Your task to perform on an android device: open app "Adobe Express: Graphic Design" (install if not already installed) Image 0: 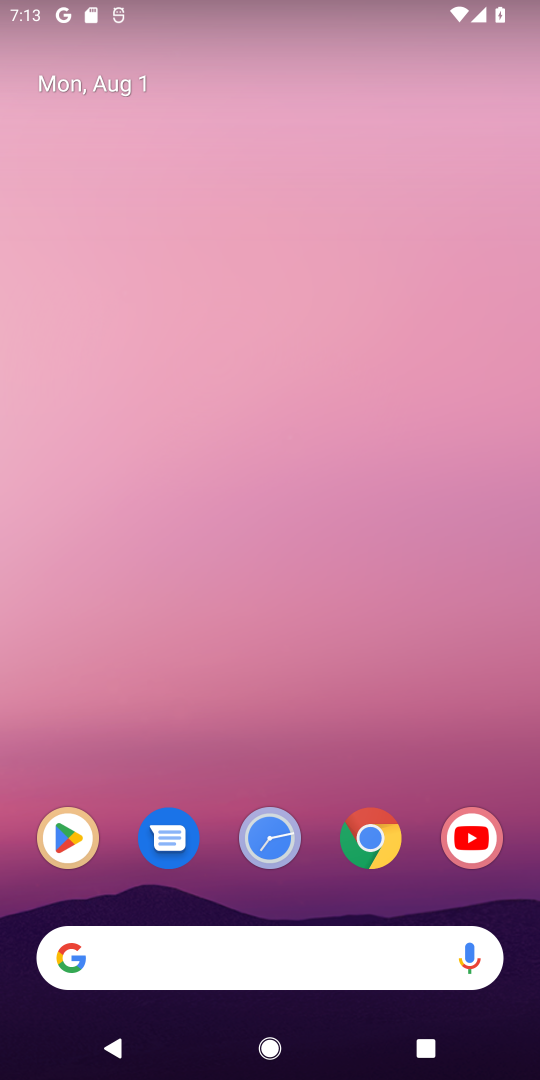
Step 0: drag from (262, 909) to (385, 49)
Your task to perform on an android device: open app "Adobe Express: Graphic Design" (install if not already installed) Image 1: 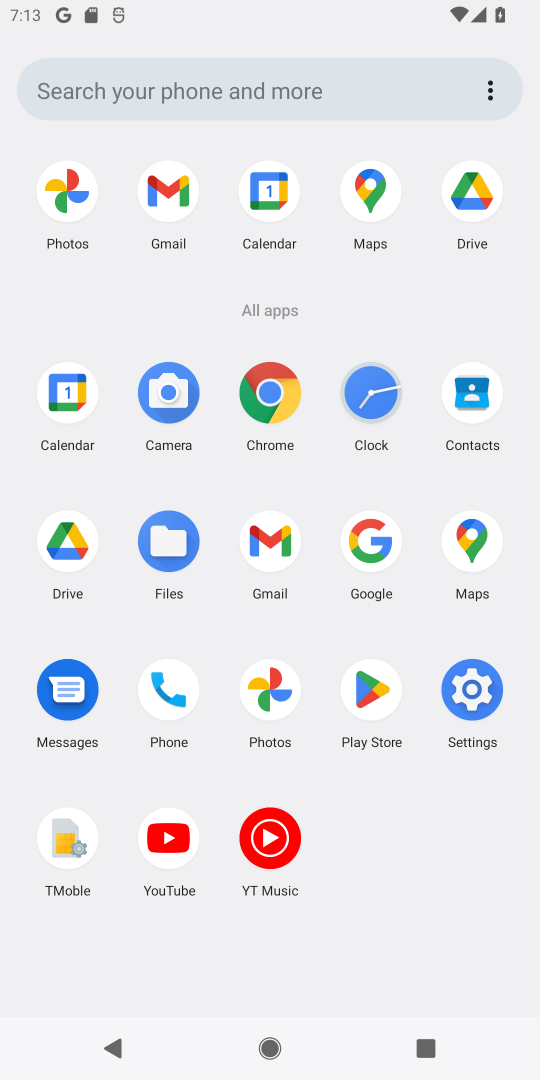
Step 1: click (368, 701)
Your task to perform on an android device: open app "Adobe Express: Graphic Design" (install if not already installed) Image 2: 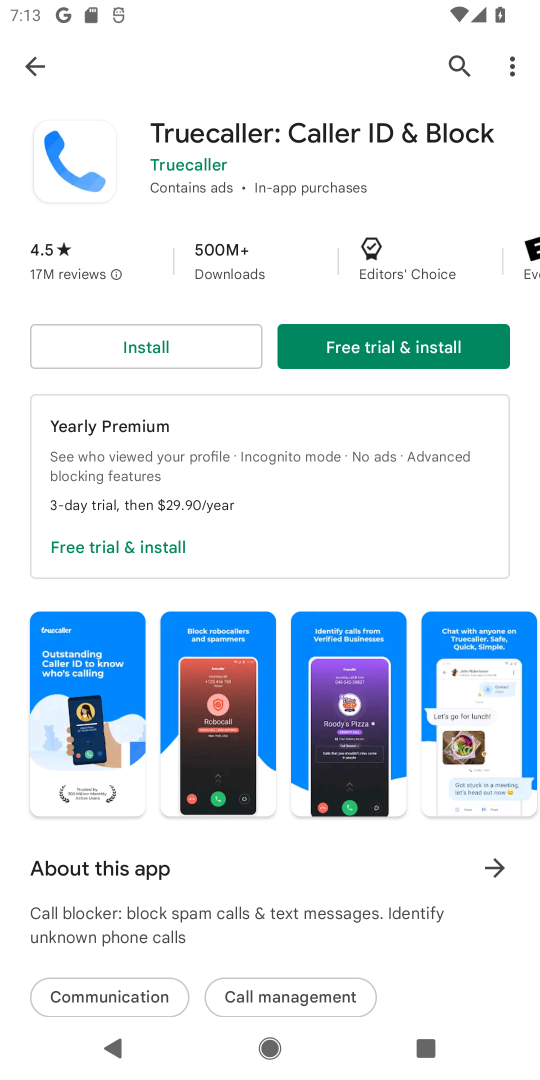
Step 2: click (27, 62)
Your task to perform on an android device: open app "Adobe Express: Graphic Design" (install if not already installed) Image 3: 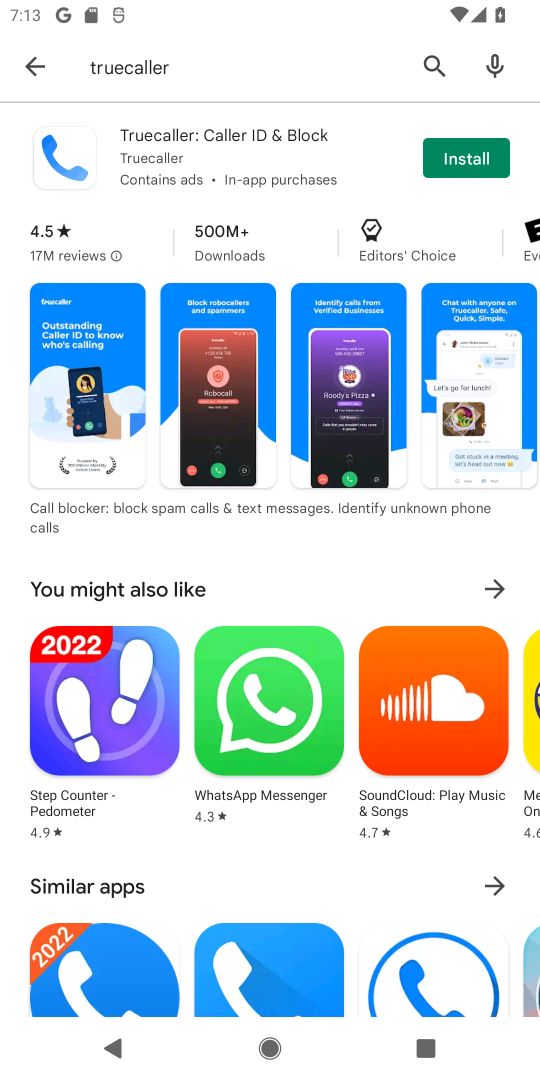
Step 3: click (48, 64)
Your task to perform on an android device: open app "Adobe Express: Graphic Design" (install if not already installed) Image 4: 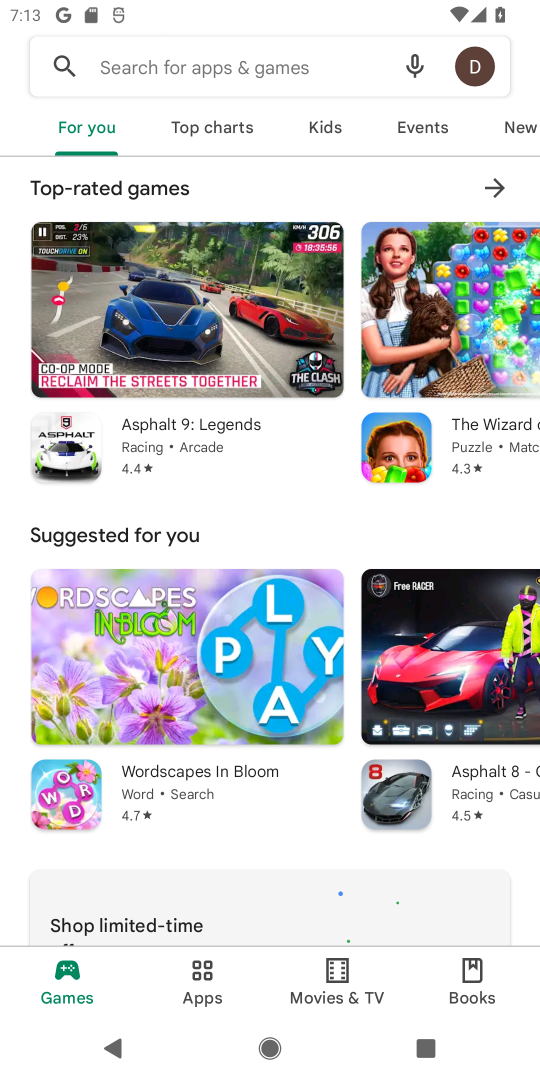
Step 4: click (98, 58)
Your task to perform on an android device: open app "Adobe Express: Graphic Design" (install if not already installed) Image 5: 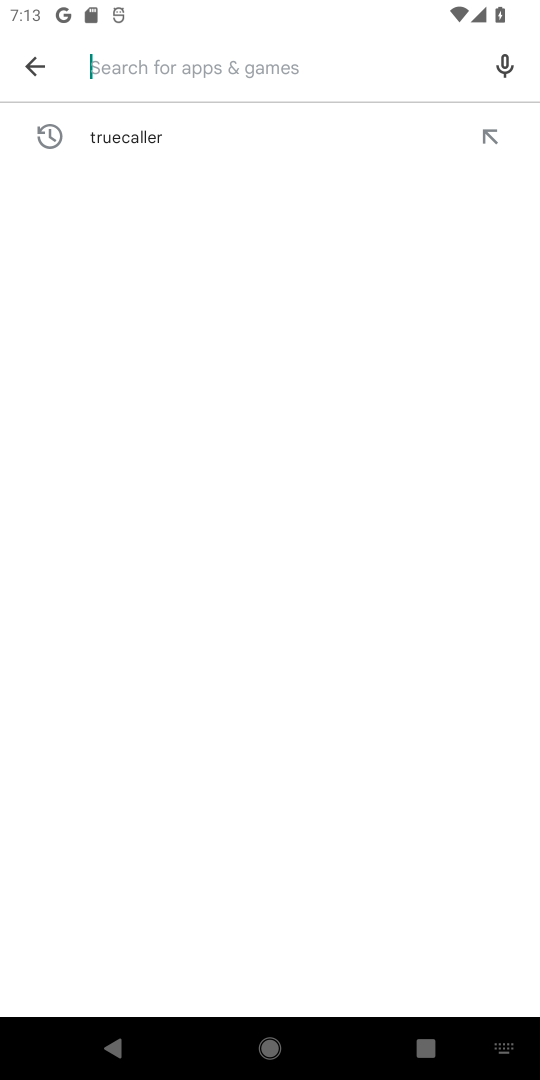
Step 5: type "Adobe Express: Graphic Design"
Your task to perform on an android device: open app "Adobe Express: Graphic Design" (install if not already installed) Image 6: 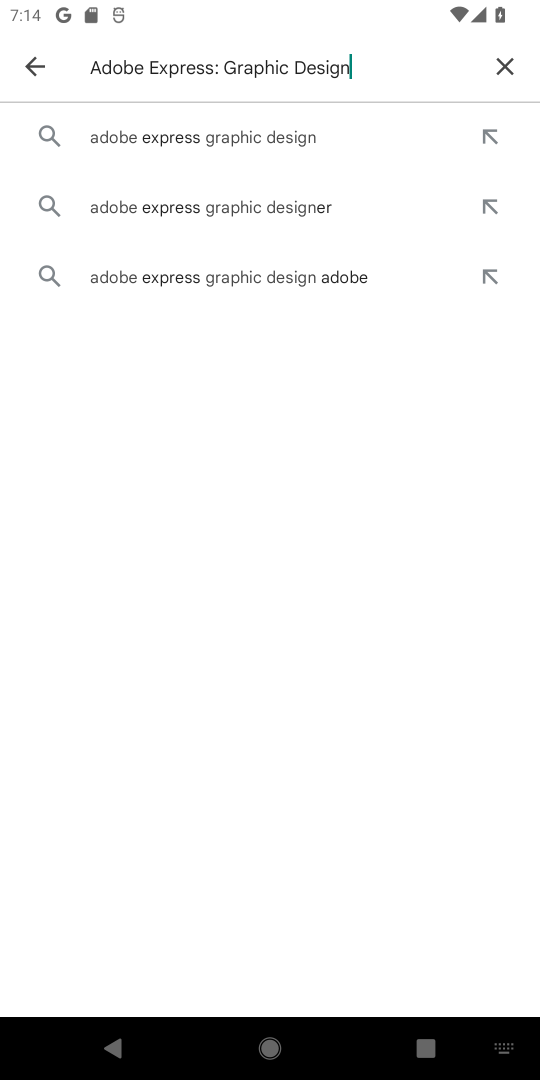
Step 6: click (228, 146)
Your task to perform on an android device: open app "Adobe Express: Graphic Design" (install if not already installed) Image 7: 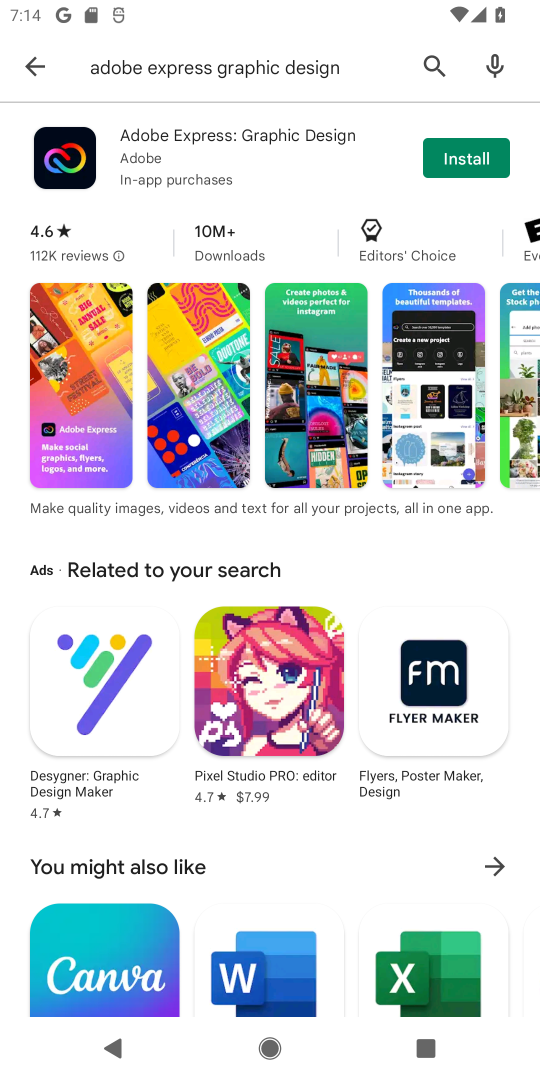
Step 7: click (435, 152)
Your task to perform on an android device: open app "Adobe Express: Graphic Design" (install if not already installed) Image 8: 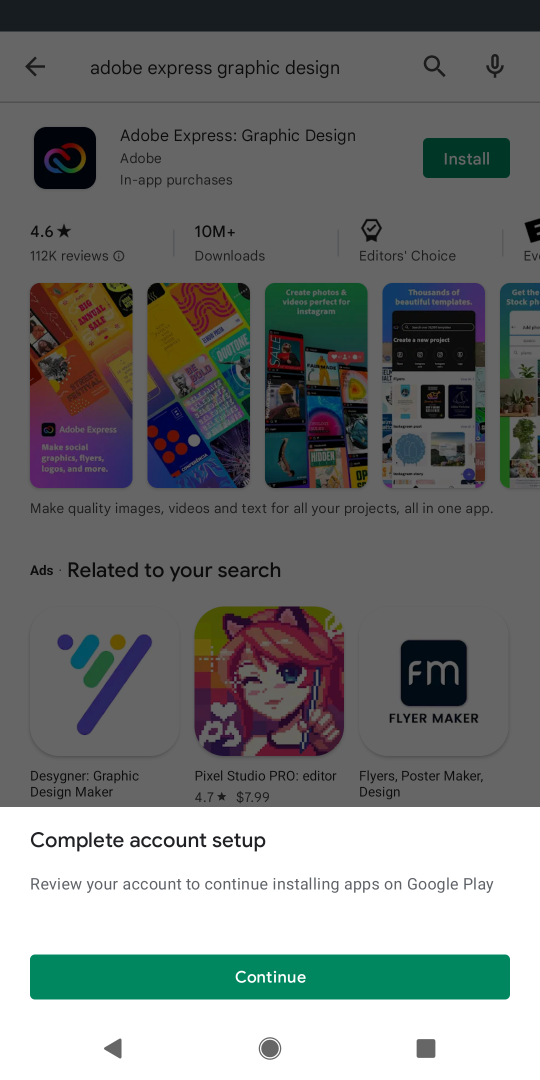
Step 8: click (350, 960)
Your task to perform on an android device: open app "Adobe Express: Graphic Design" (install if not already installed) Image 9: 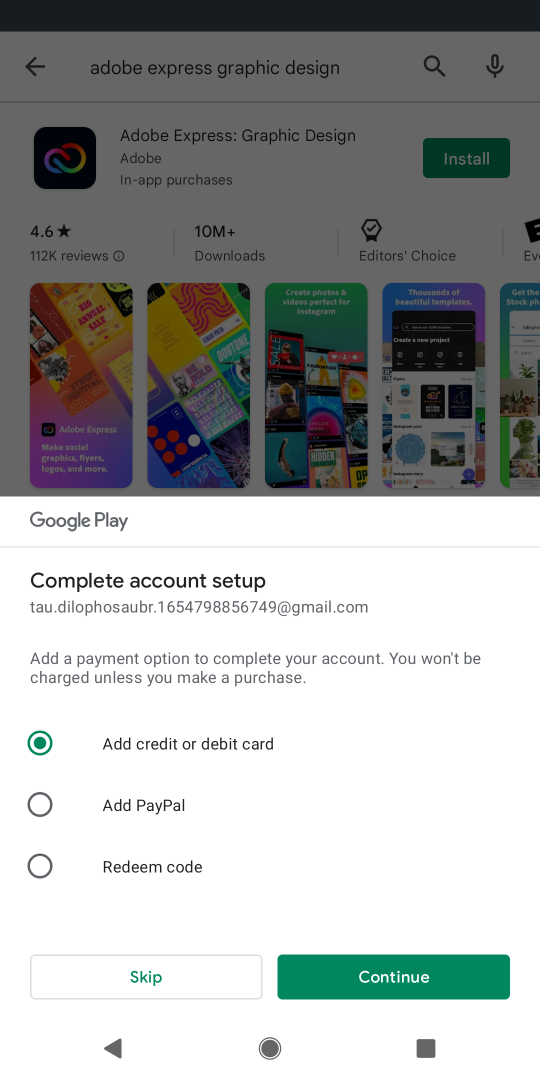
Step 9: click (149, 965)
Your task to perform on an android device: open app "Adobe Express: Graphic Design" (install if not already installed) Image 10: 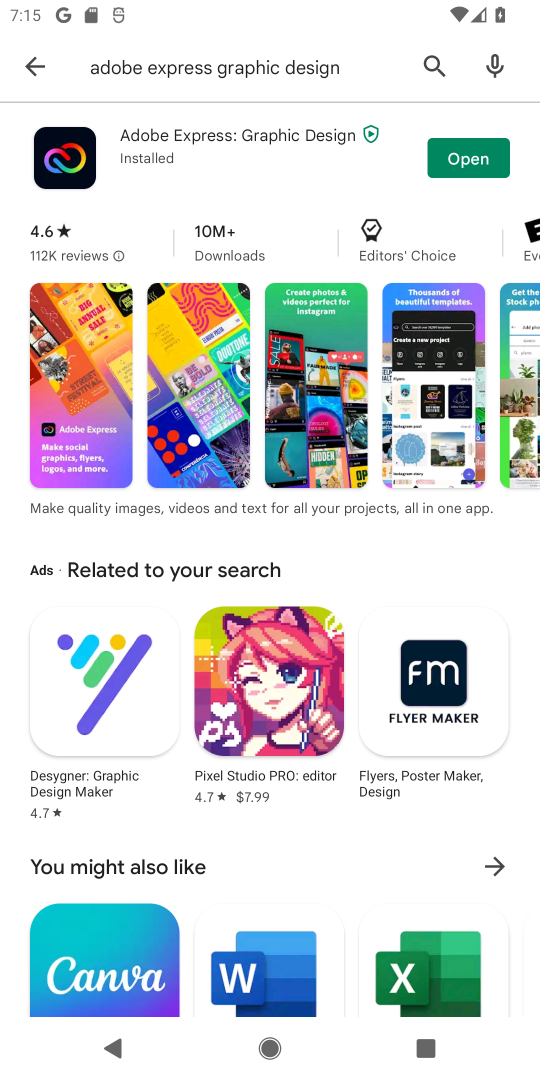
Step 10: click (432, 146)
Your task to perform on an android device: open app "Adobe Express: Graphic Design" (install if not already installed) Image 11: 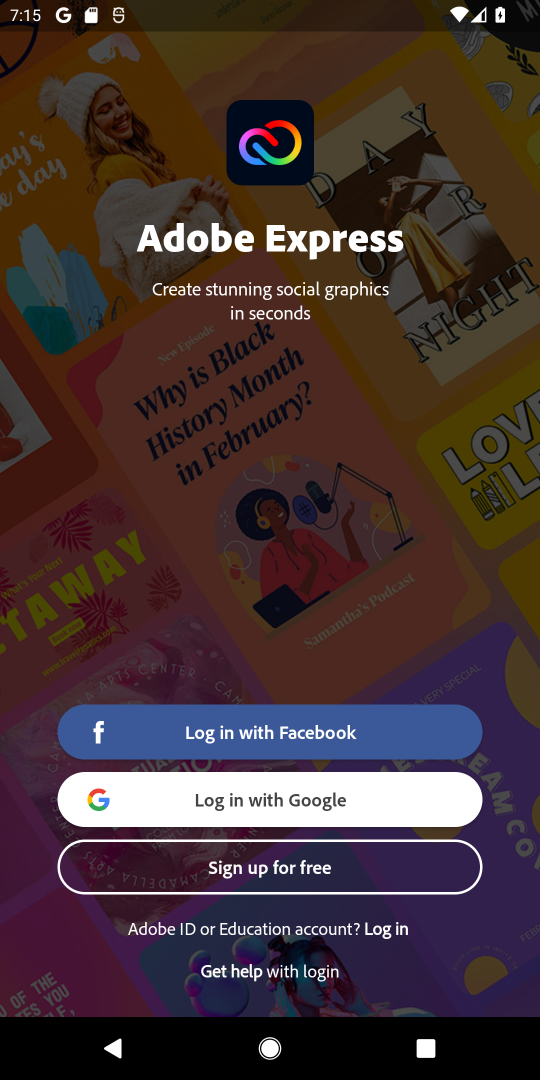
Step 11: task complete